Your task to perform on an android device: Go to Wikipedia Image 0: 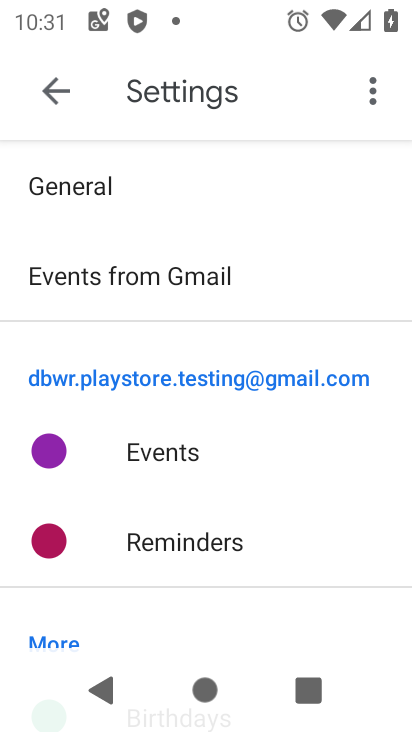
Step 0: press home button
Your task to perform on an android device: Go to Wikipedia Image 1: 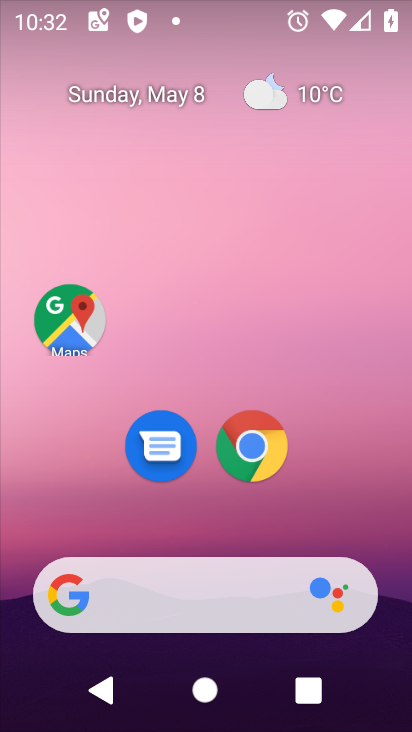
Step 1: click (252, 456)
Your task to perform on an android device: Go to Wikipedia Image 2: 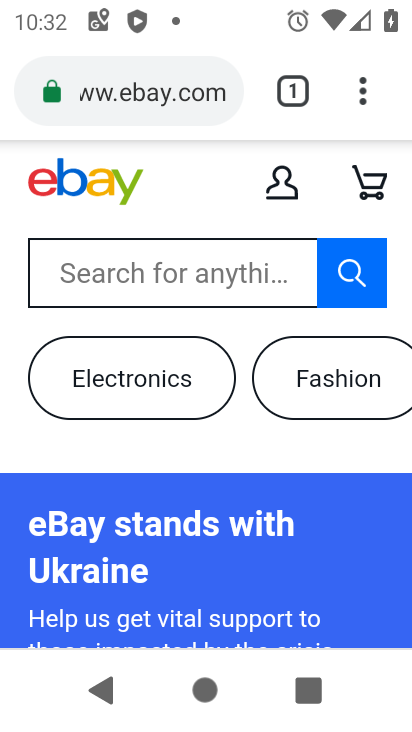
Step 2: click (134, 89)
Your task to perform on an android device: Go to Wikipedia Image 3: 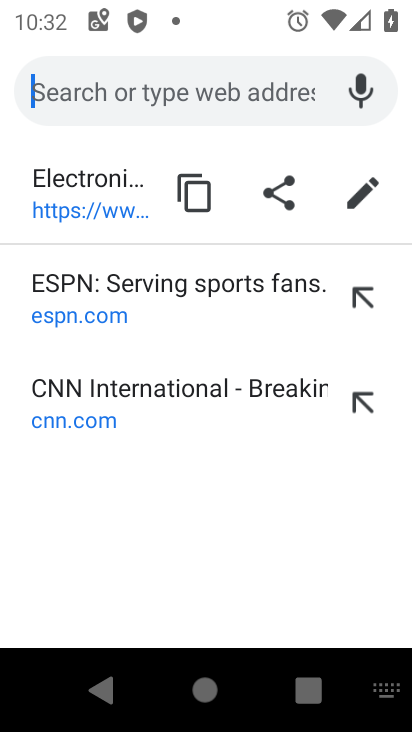
Step 3: type "wikipedia"
Your task to perform on an android device: Go to Wikipedia Image 4: 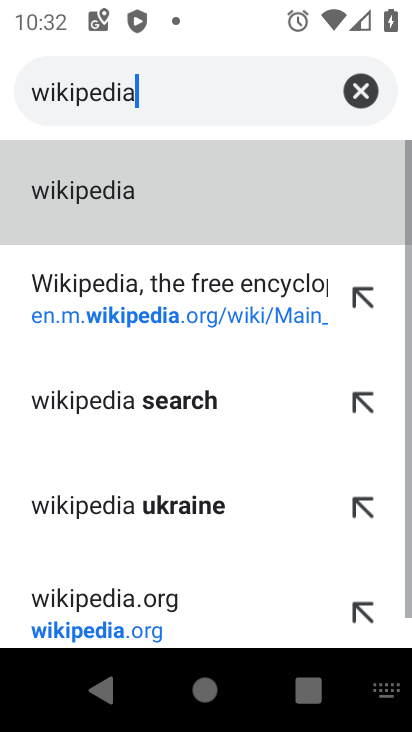
Step 4: click (124, 189)
Your task to perform on an android device: Go to Wikipedia Image 5: 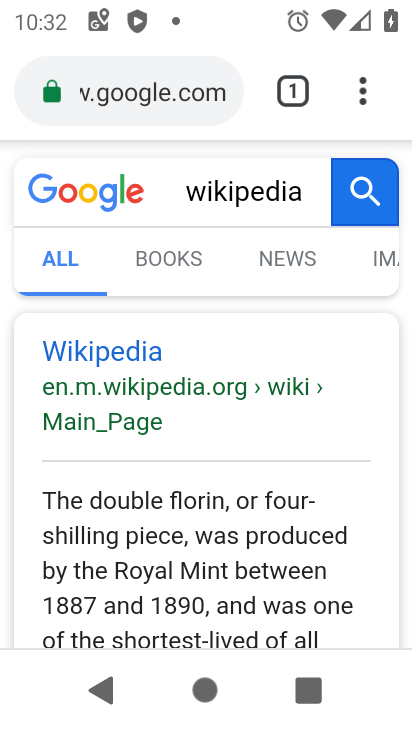
Step 5: task complete